Your task to perform on an android device: set the stopwatch Image 0: 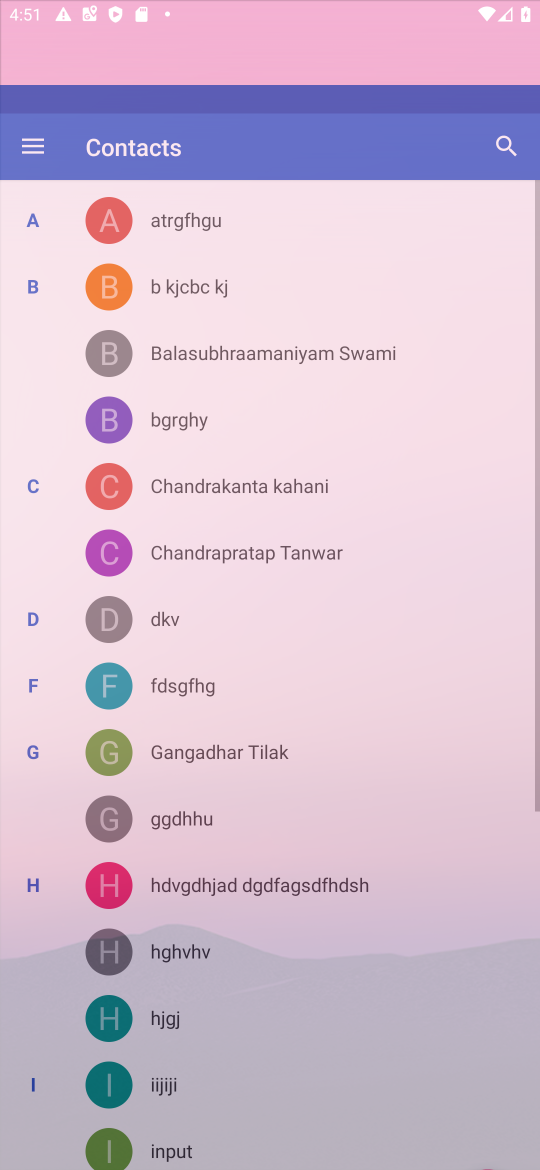
Step 0: press home button
Your task to perform on an android device: set the stopwatch Image 1: 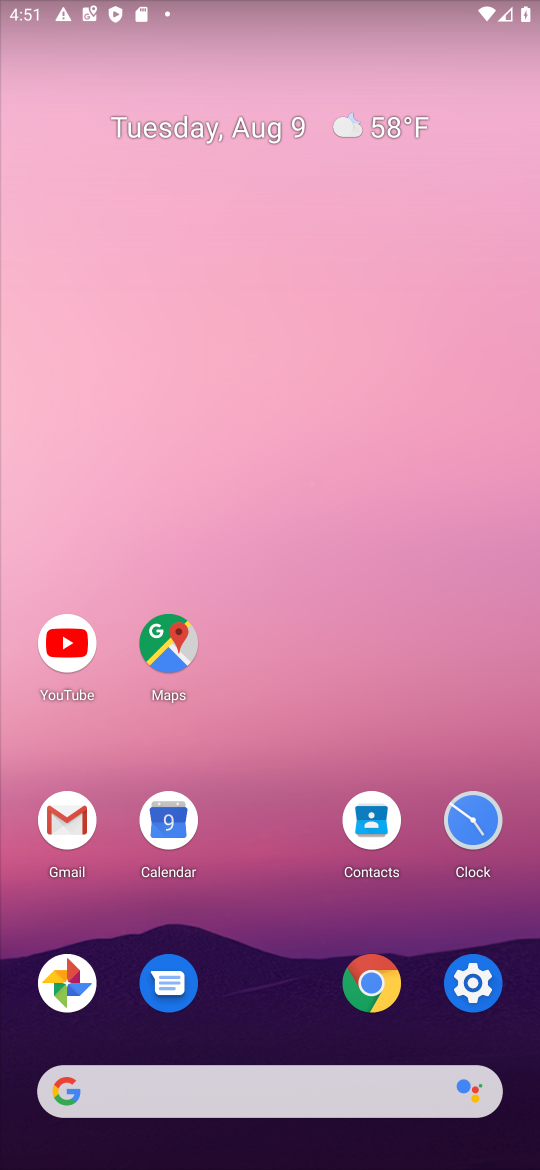
Step 1: click (478, 821)
Your task to perform on an android device: set the stopwatch Image 2: 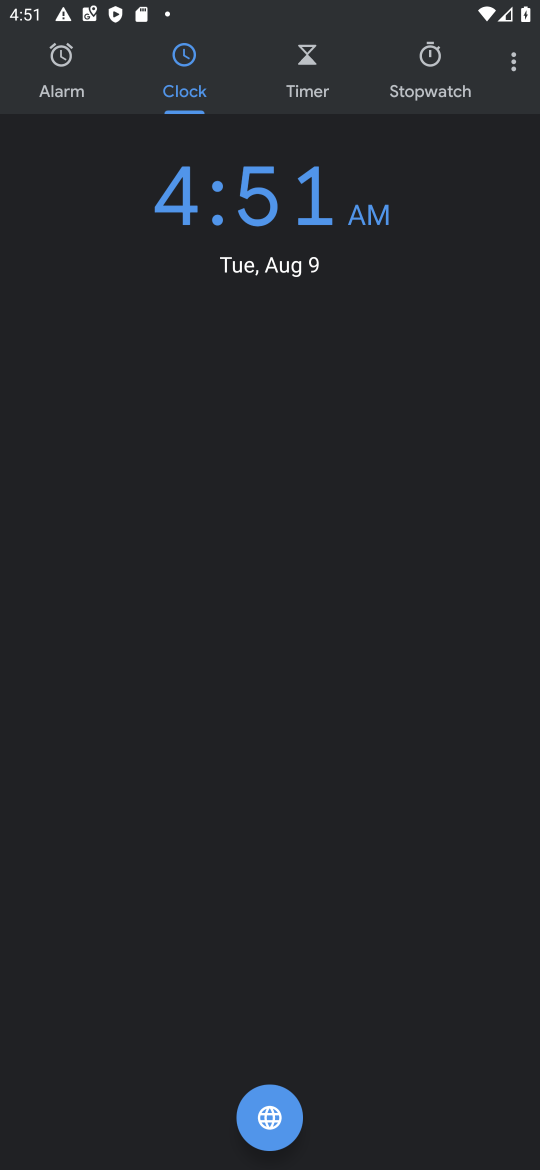
Step 2: click (422, 66)
Your task to perform on an android device: set the stopwatch Image 3: 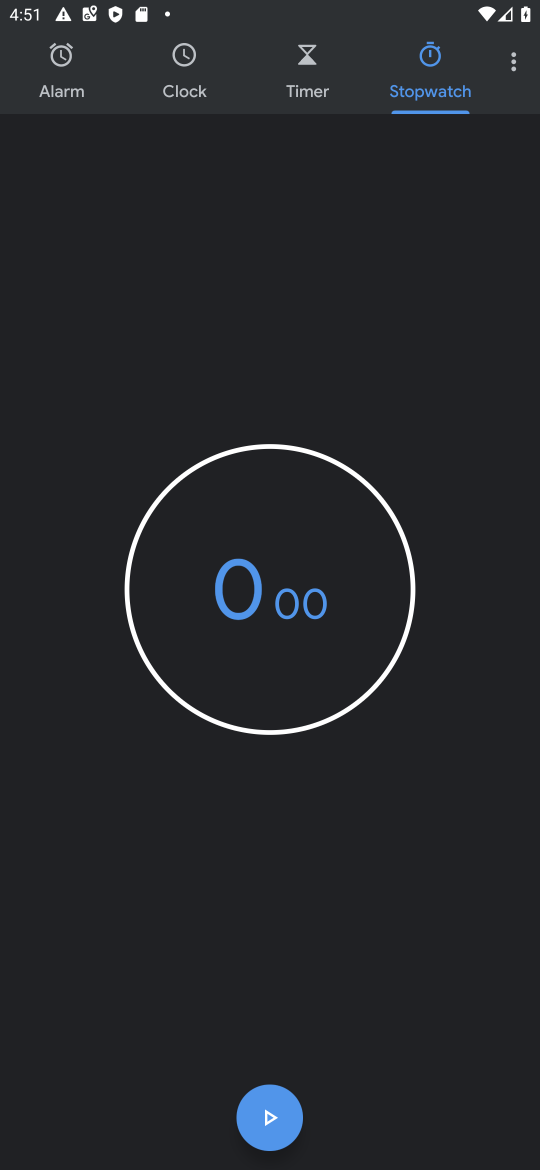
Step 3: task complete